Your task to perform on an android device: turn on improve location accuracy Image 0: 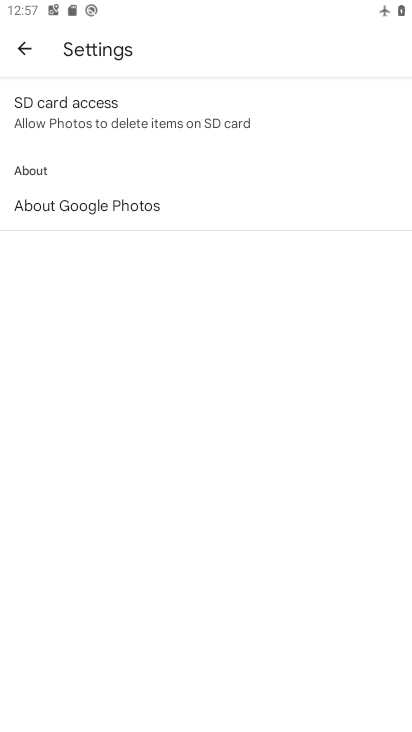
Step 0: press home button
Your task to perform on an android device: turn on improve location accuracy Image 1: 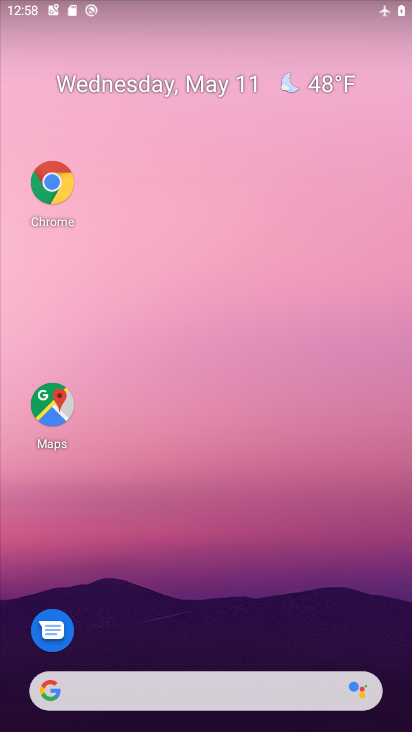
Step 1: drag from (190, 669) to (124, 0)
Your task to perform on an android device: turn on improve location accuracy Image 2: 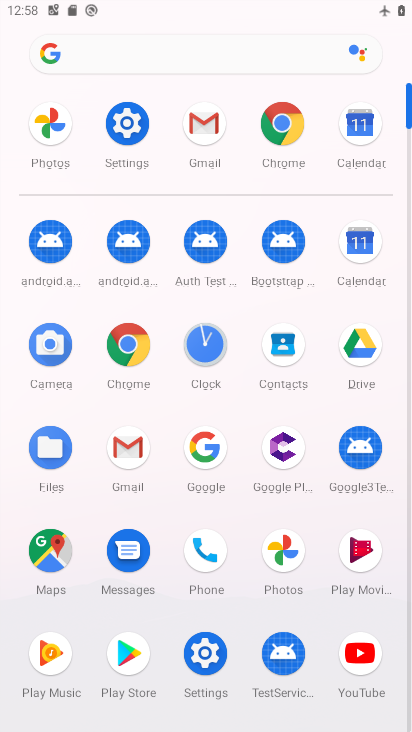
Step 2: click (126, 119)
Your task to perform on an android device: turn on improve location accuracy Image 3: 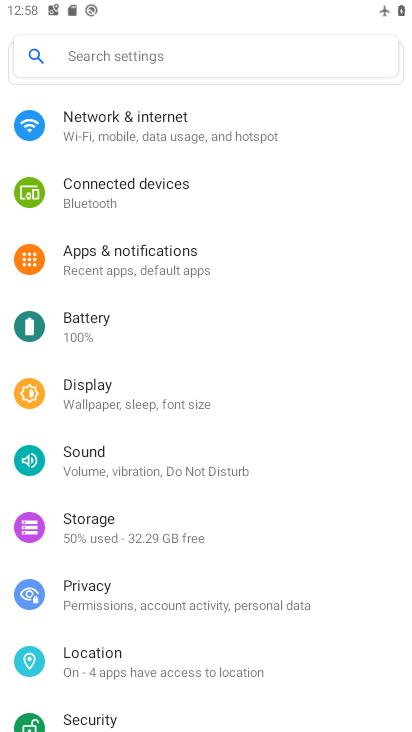
Step 3: click (108, 647)
Your task to perform on an android device: turn on improve location accuracy Image 4: 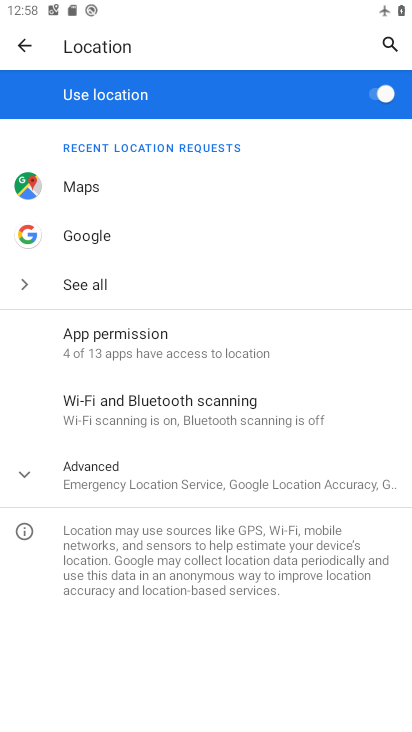
Step 4: click (114, 472)
Your task to perform on an android device: turn on improve location accuracy Image 5: 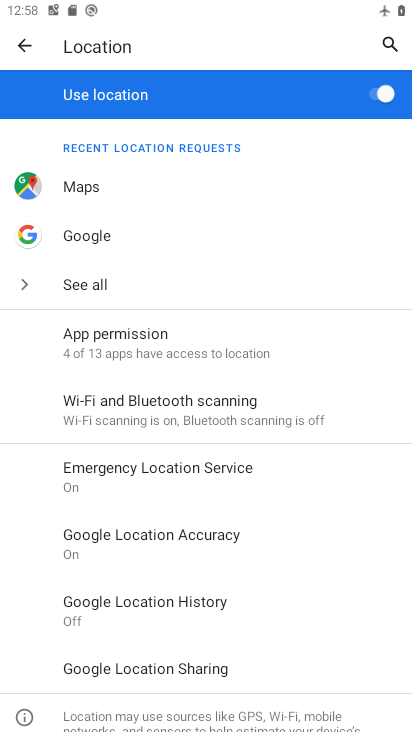
Step 5: click (171, 545)
Your task to perform on an android device: turn on improve location accuracy Image 6: 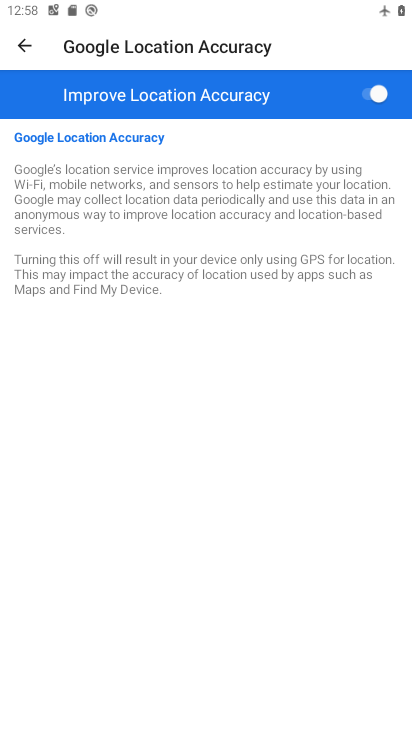
Step 6: click (375, 90)
Your task to perform on an android device: turn on improve location accuracy Image 7: 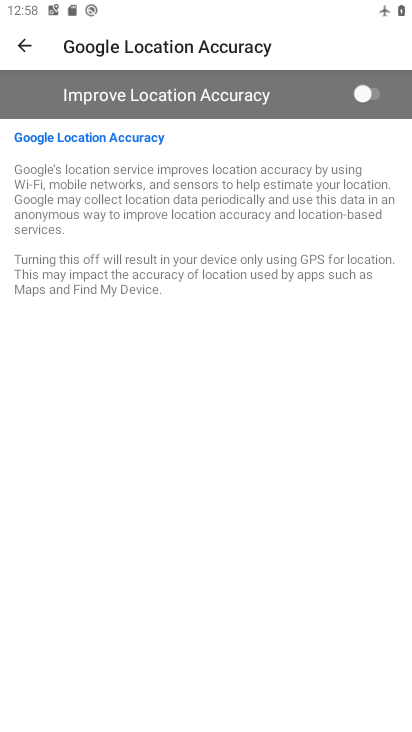
Step 7: click (361, 92)
Your task to perform on an android device: turn on improve location accuracy Image 8: 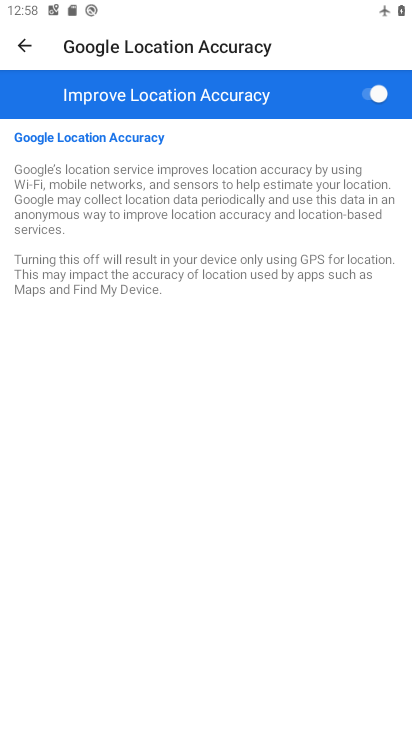
Step 8: task complete